Your task to perform on an android device: Open accessibility settings Image 0: 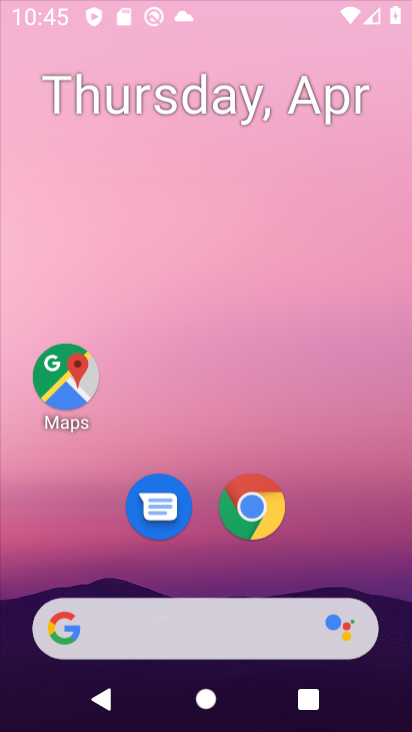
Step 0: drag from (255, 141) to (209, 458)
Your task to perform on an android device: Open accessibility settings Image 1: 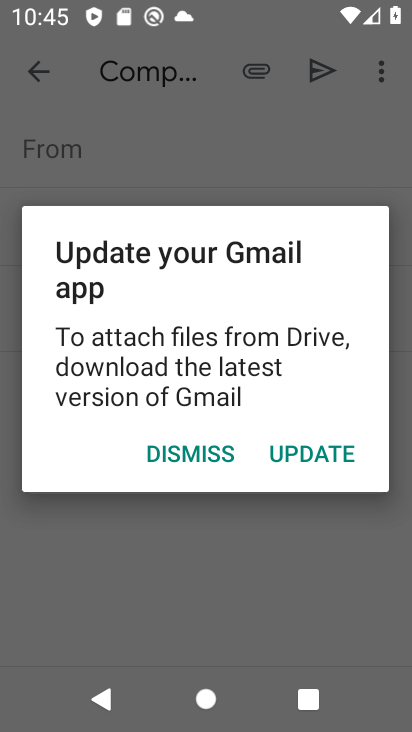
Step 1: press back button
Your task to perform on an android device: Open accessibility settings Image 2: 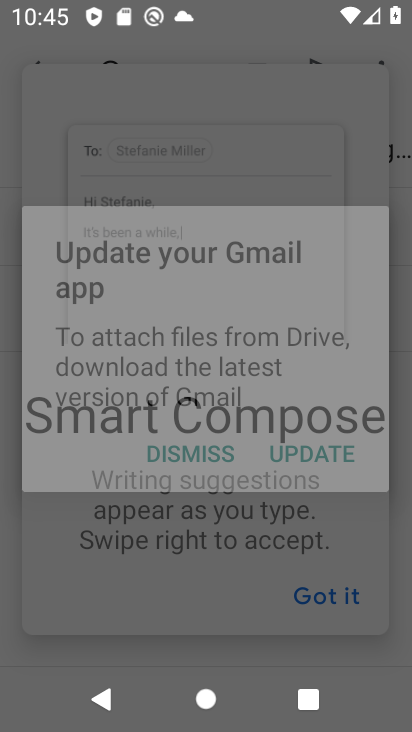
Step 2: press back button
Your task to perform on an android device: Open accessibility settings Image 3: 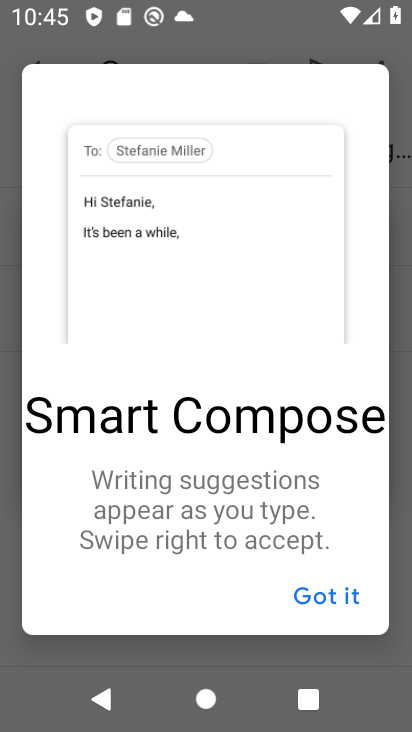
Step 3: press back button
Your task to perform on an android device: Open accessibility settings Image 4: 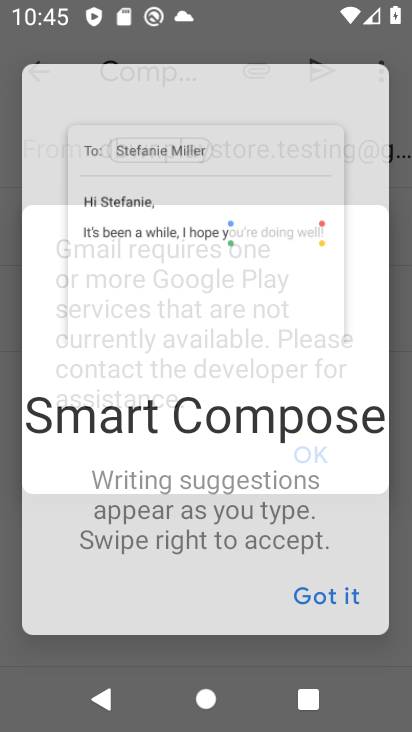
Step 4: press back button
Your task to perform on an android device: Open accessibility settings Image 5: 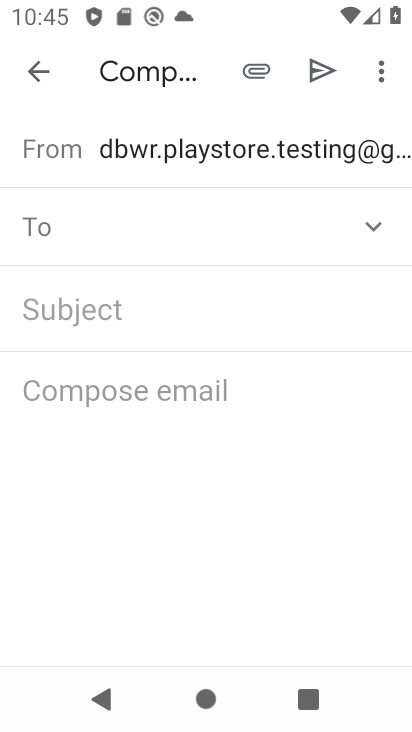
Step 5: press back button
Your task to perform on an android device: Open accessibility settings Image 6: 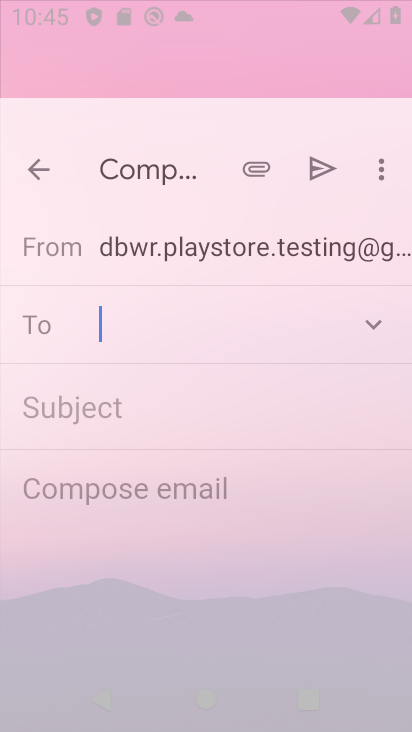
Step 6: press back button
Your task to perform on an android device: Open accessibility settings Image 7: 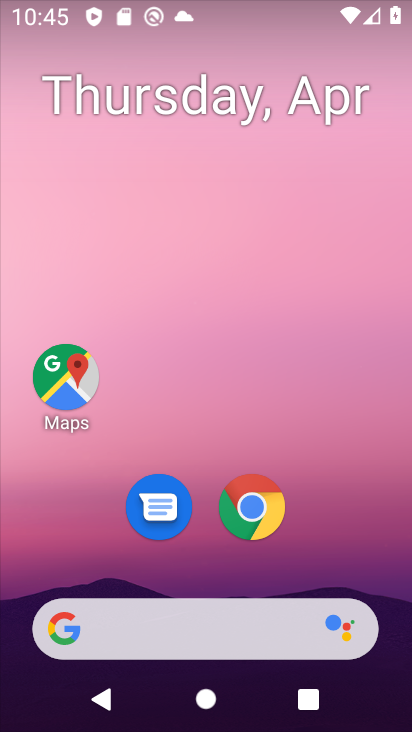
Step 7: drag from (154, 594) to (281, 6)
Your task to perform on an android device: Open accessibility settings Image 8: 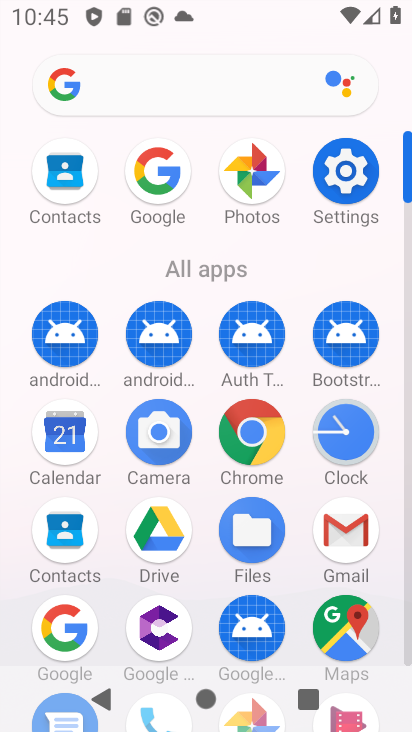
Step 8: click (335, 194)
Your task to perform on an android device: Open accessibility settings Image 9: 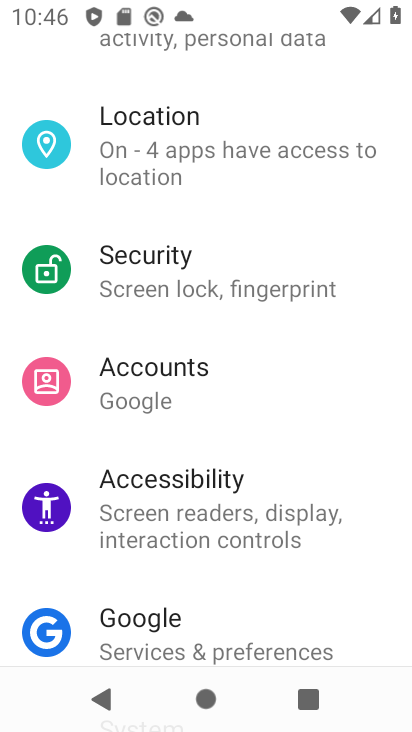
Step 9: click (205, 523)
Your task to perform on an android device: Open accessibility settings Image 10: 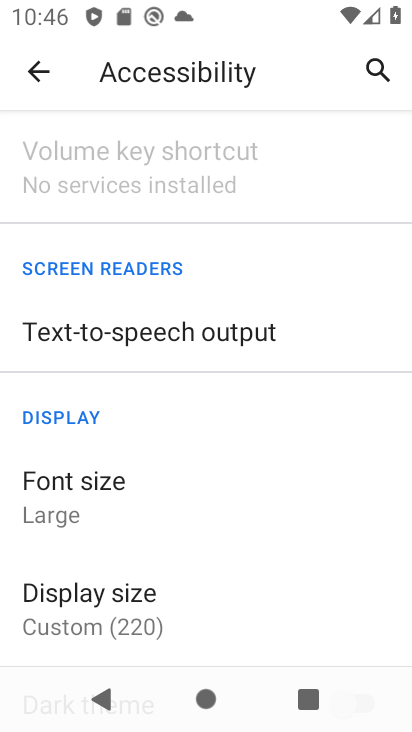
Step 10: task complete